Your task to perform on an android device: toggle priority inbox in the gmail app Image 0: 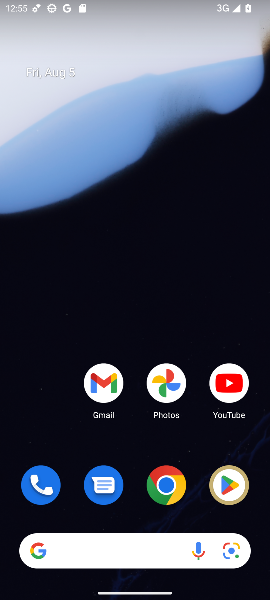
Step 0: click (104, 379)
Your task to perform on an android device: toggle priority inbox in the gmail app Image 1: 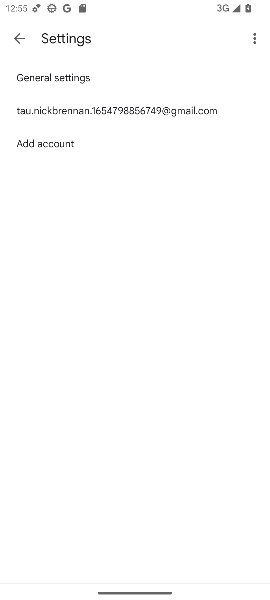
Step 1: click (19, 36)
Your task to perform on an android device: toggle priority inbox in the gmail app Image 2: 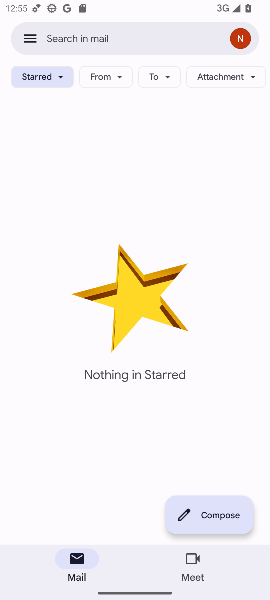
Step 2: click (28, 34)
Your task to perform on an android device: toggle priority inbox in the gmail app Image 3: 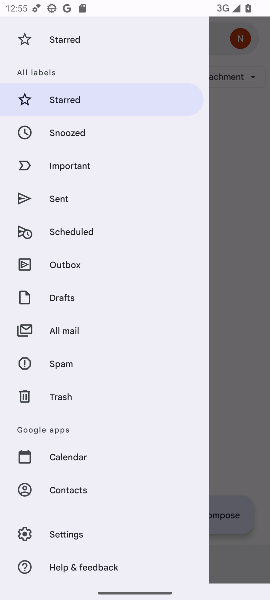
Step 3: click (64, 534)
Your task to perform on an android device: toggle priority inbox in the gmail app Image 4: 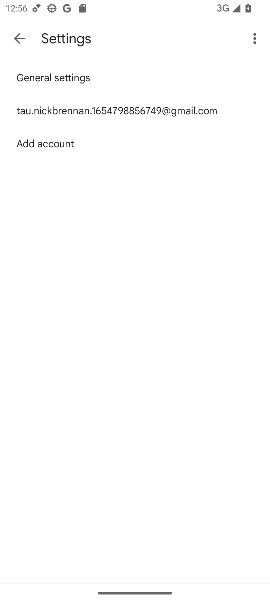
Step 4: click (61, 105)
Your task to perform on an android device: toggle priority inbox in the gmail app Image 5: 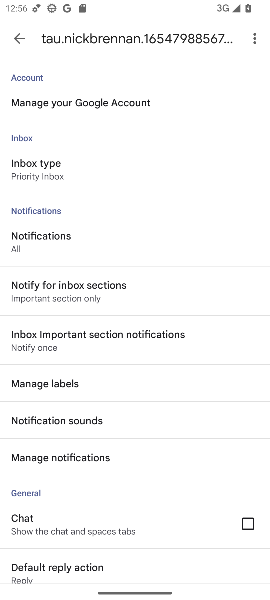
Step 5: click (49, 164)
Your task to perform on an android device: toggle priority inbox in the gmail app Image 6: 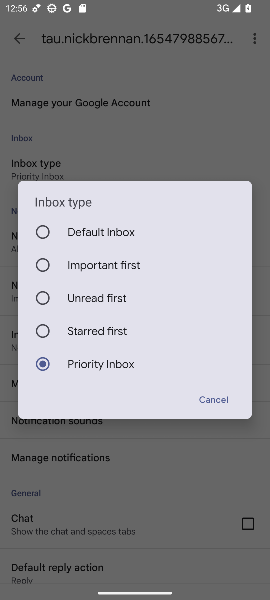
Step 6: click (39, 230)
Your task to perform on an android device: toggle priority inbox in the gmail app Image 7: 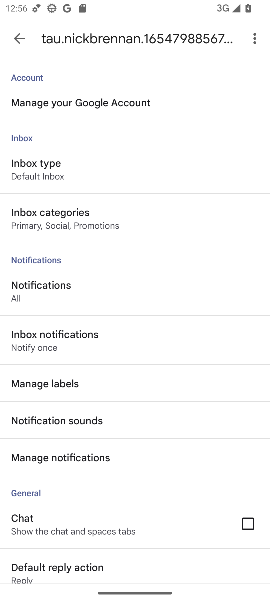
Step 7: task complete